Your task to perform on an android device: Open notification settings Image 0: 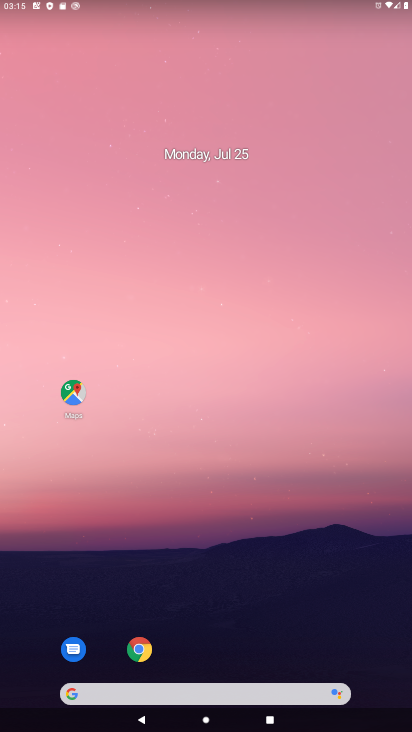
Step 0: drag from (361, 394) to (334, 227)
Your task to perform on an android device: Open notification settings Image 1: 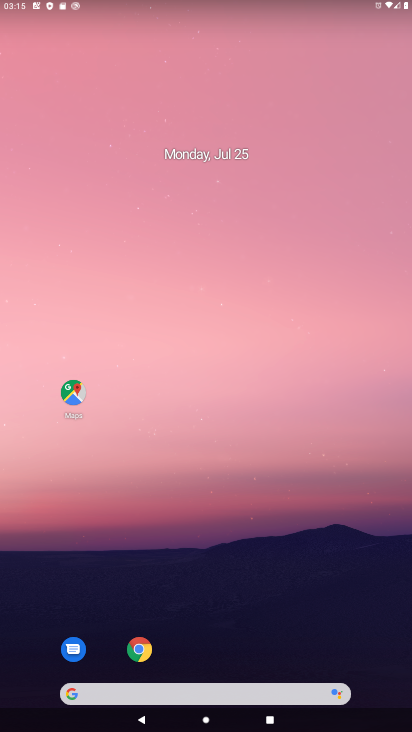
Step 1: drag from (368, 662) to (310, 225)
Your task to perform on an android device: Open notification settings Image 2: 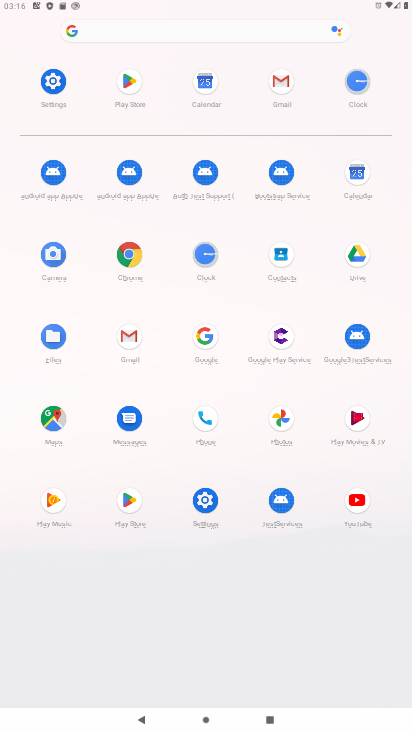
Step 2: click (206, 501)
Your task to perform on an android device: Open notification settings Image 3: 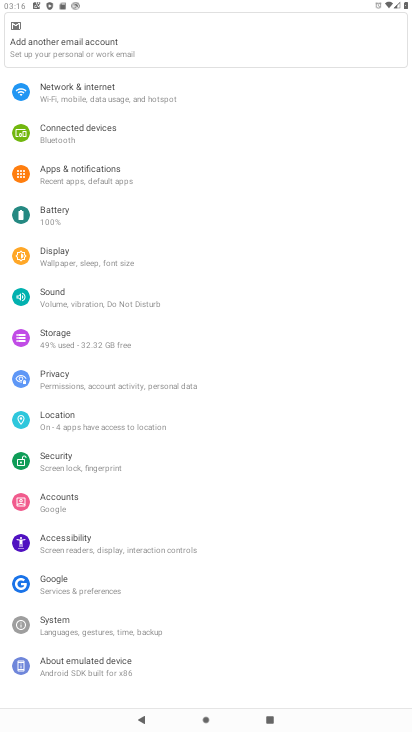
Step 3: click (88, 164)
Your task to perform on an android device: Open notification settings Image 4: 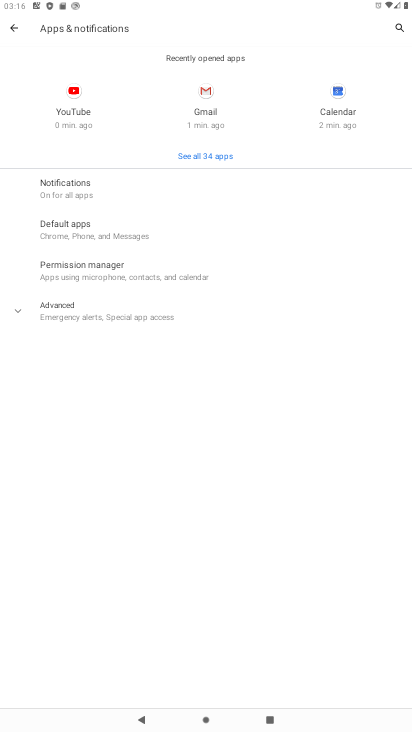
Step 4: click (57, 180)
Your task to perform on an android device: Open notification settings Image 5: 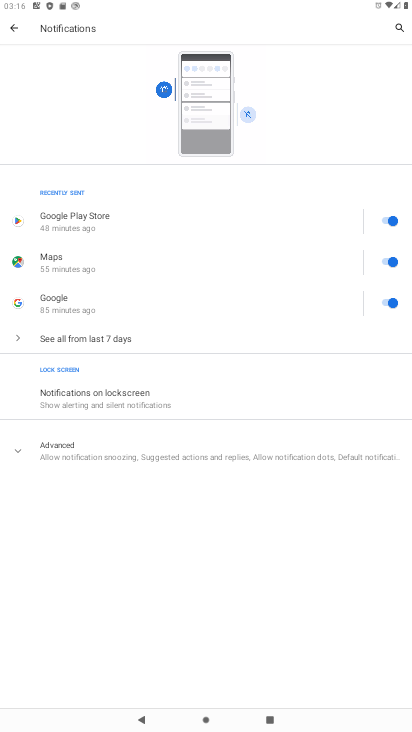
Step 5: click (17, 453)
Your task to perform on an android device: Open notification settings Image 6: 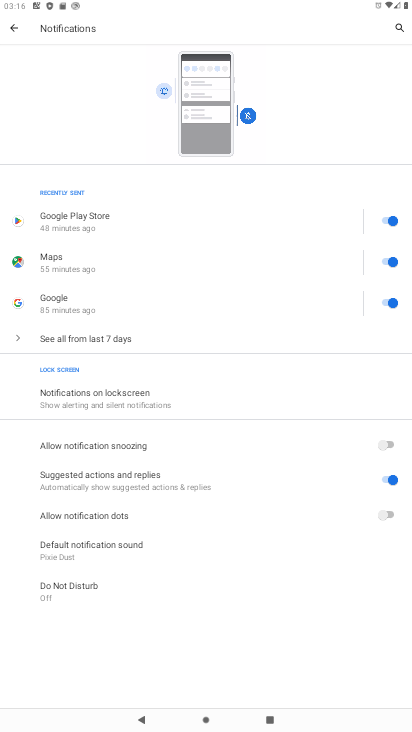
Step 6: task complete